Your task to perform on an android device: open app "Microsoft Authenticator" (install if not already installed) Image 0: 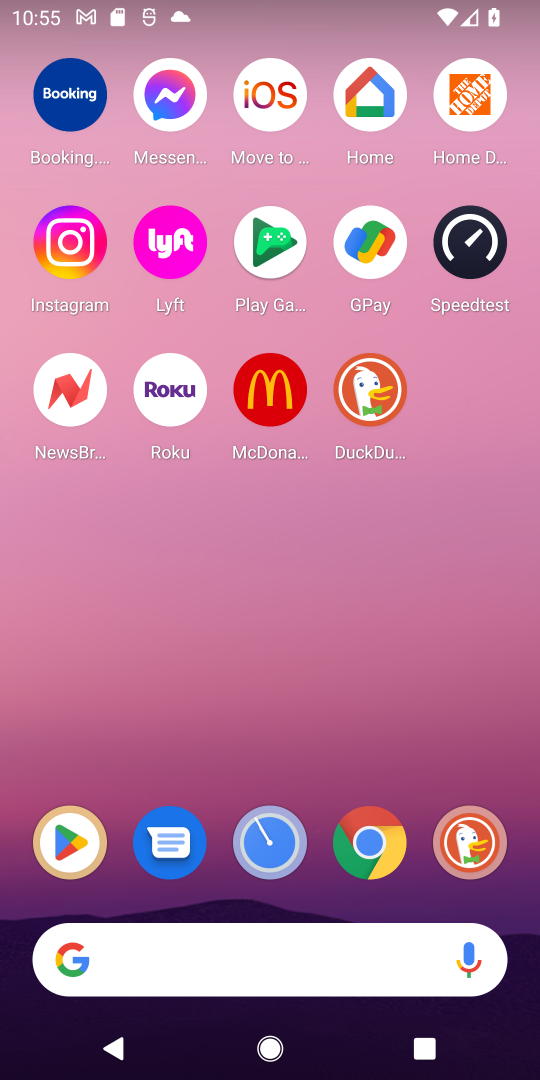
Step 0: click (81, 837)
Your task to perform on an android device: open app "Microsoft Authenticator" (install if not already installed) Image 1: 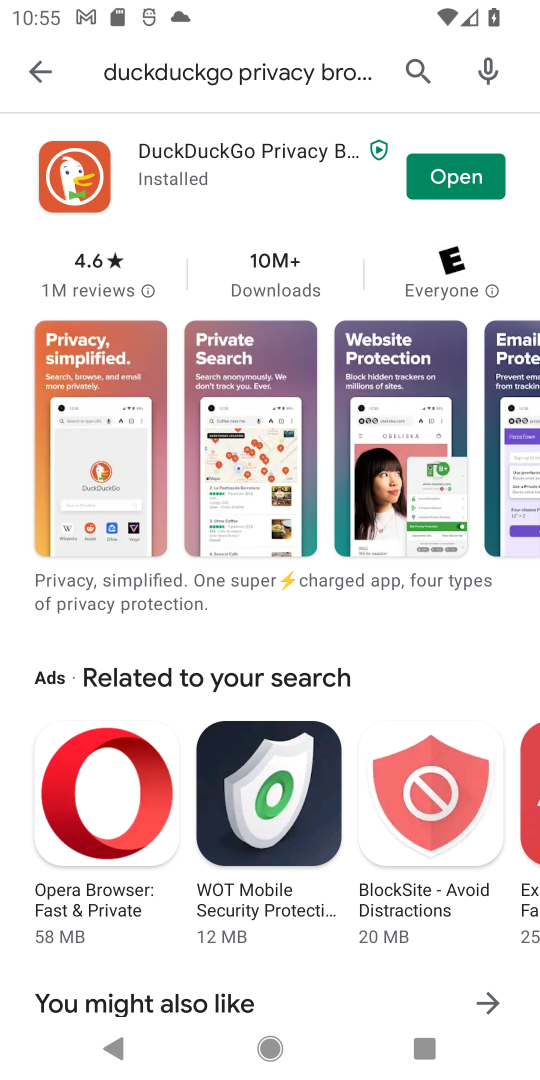
Step 1: click (405, 78)
Your task to perform on an android device: open app "Microsoft Authenticator" (install if not already installed) Image 2: 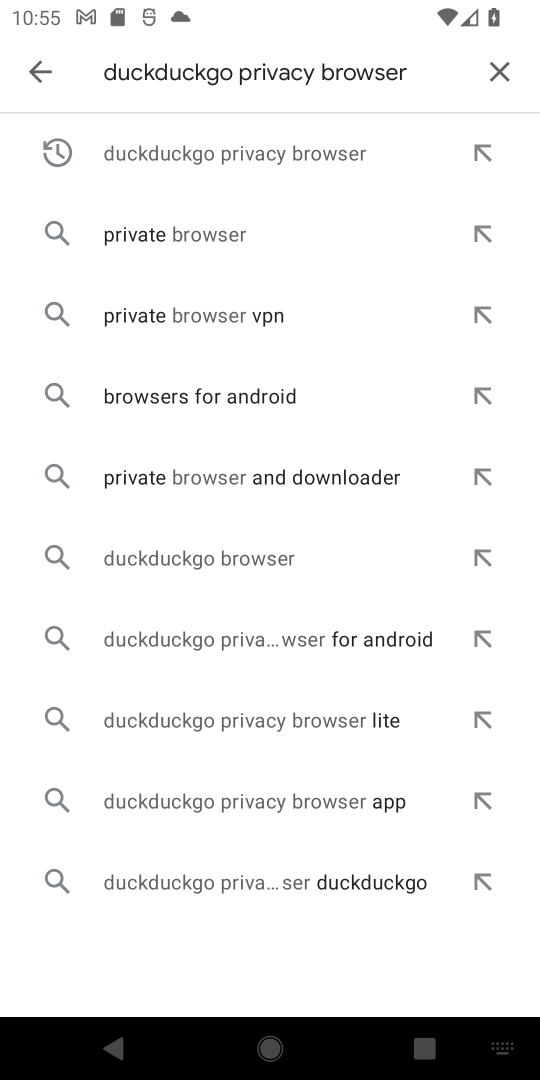
Step 2: click (492, 66)
Your task to perform on an android device: open app "Microsoft Authenticator" (install if not already installed) Image 3: 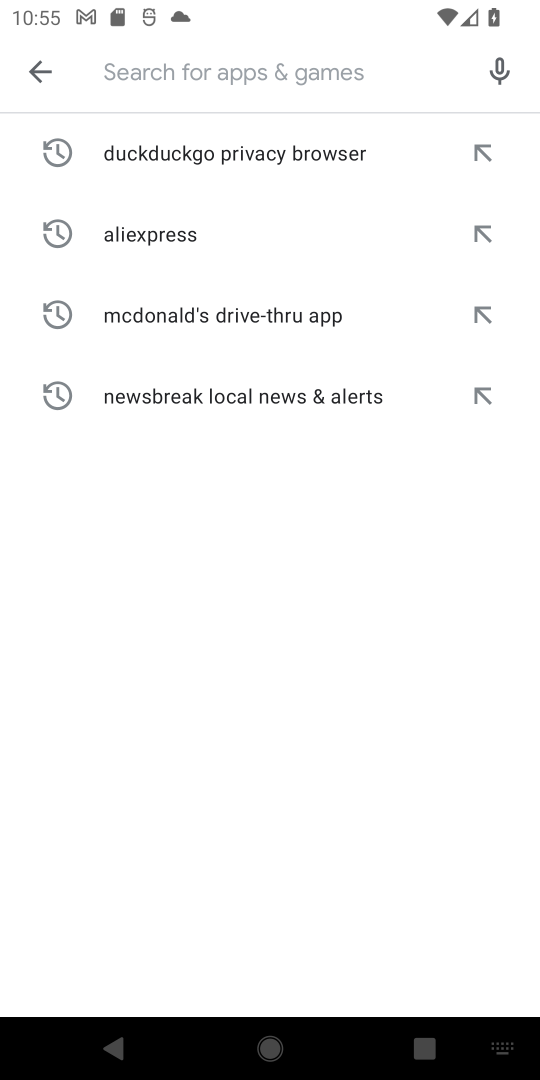
Step 3: click (130, 65)
Your task to perform on an android device: open app "Microsoft Authenticator" (install if not already installed) Image 4: 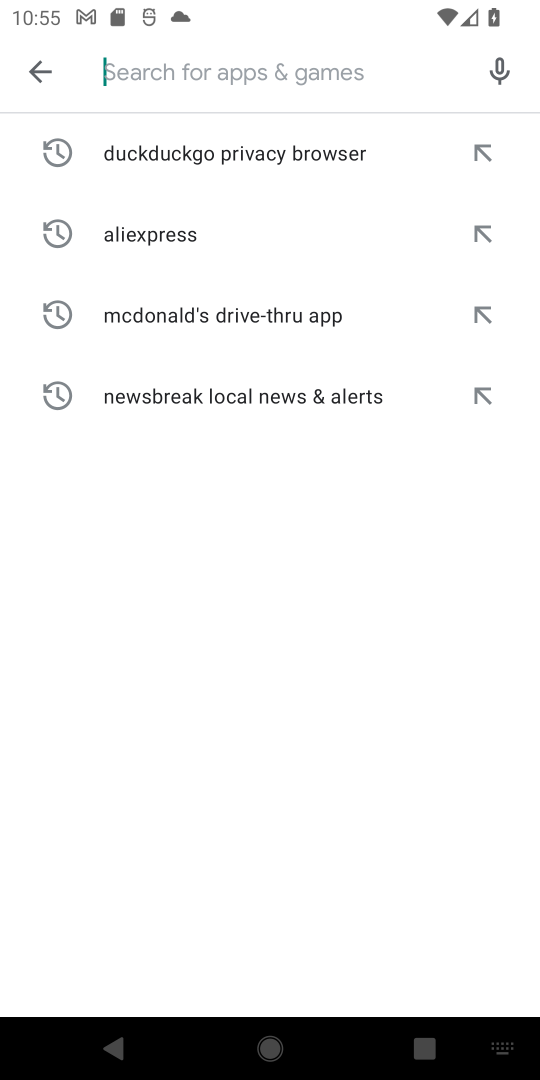
Step 4: type "Microsoft Authenticator"
Your task to perform on an android device: open app "Microsoft Authenticator" (install if not already installed) Image 5: 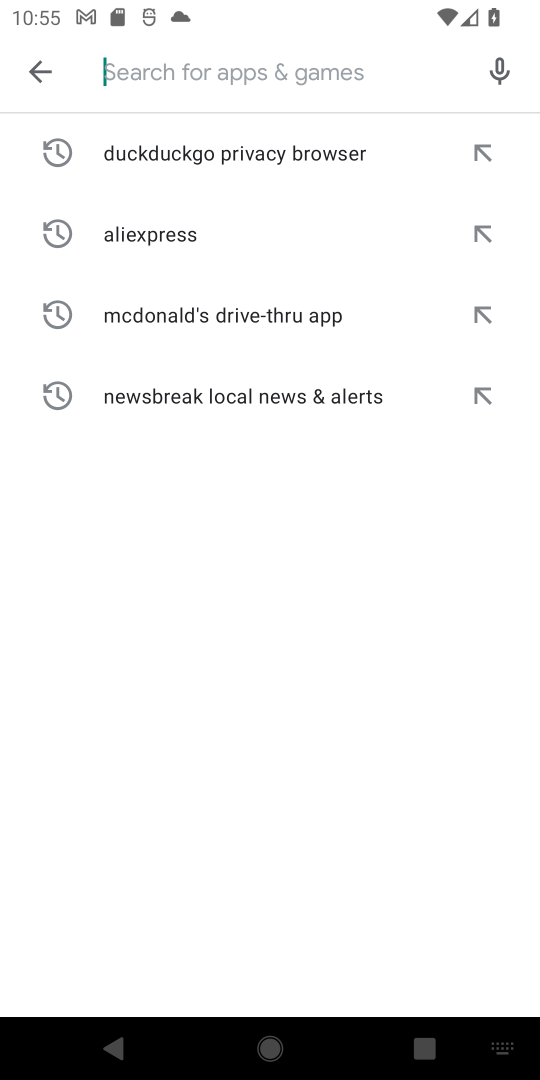
Step 5: click (209, 530)
Your task to perform on an android device: open app "Microsoft Authenticator" (install if not already installed) Image 6: 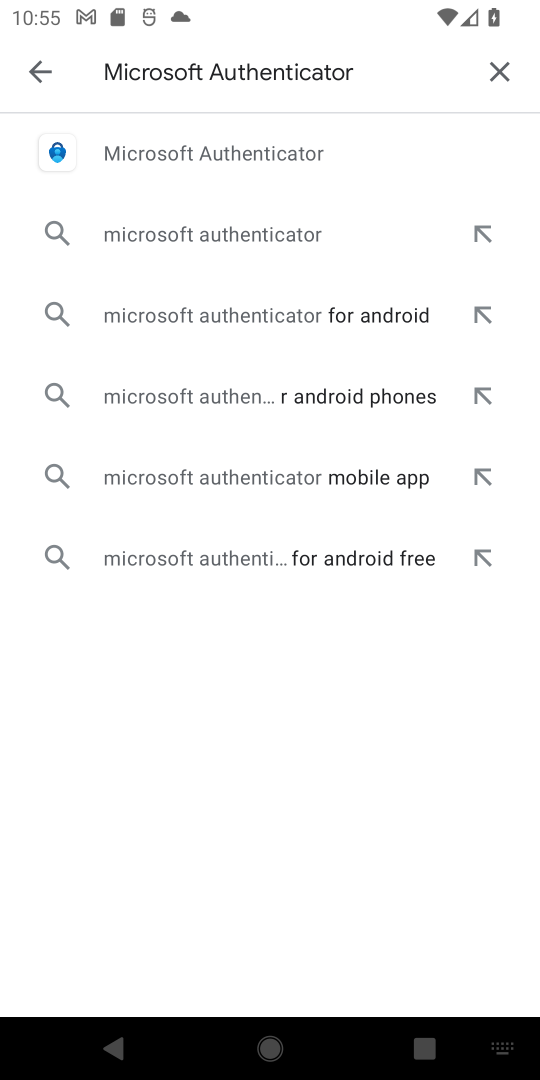
Step 6: click (260, 145)
Your task to perform on an android device: open app "Microsoft Authenticator" (install if not already installed) Image 7: 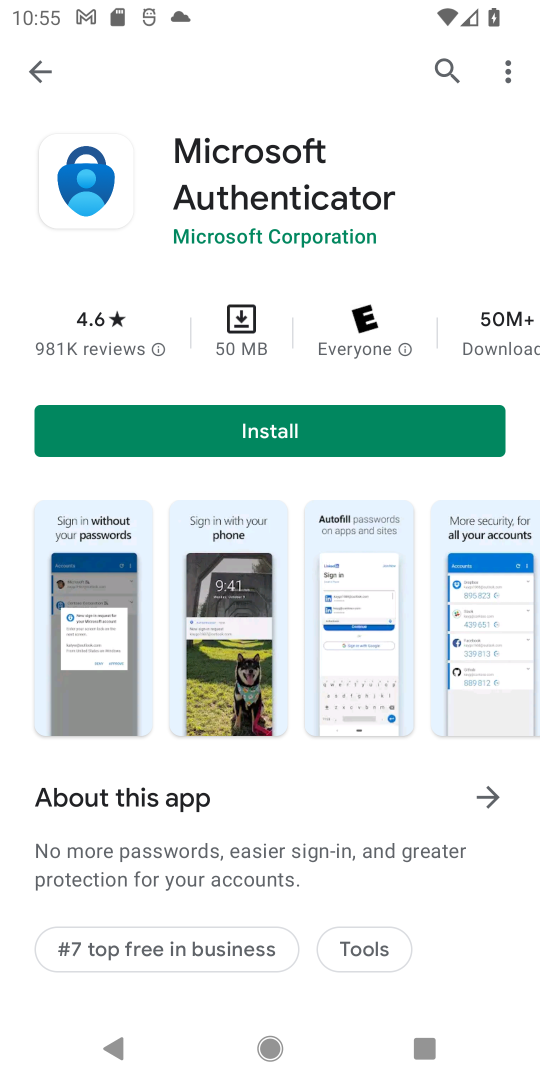
Step 7: click (253, 423)
Your task to perform on an android device: open app "Microsoft Authenticator" (install if not already installed) Image 8: 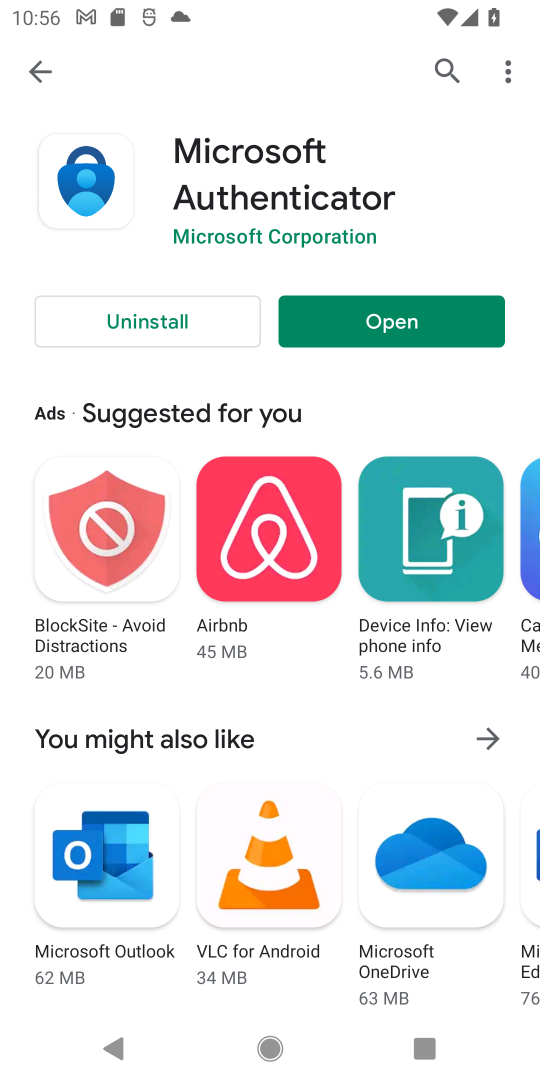
Step 8: click (406, 314)
Your task to perform on an android device: open app "Microsoft Authenticator" (install if not already installed) Image 9: 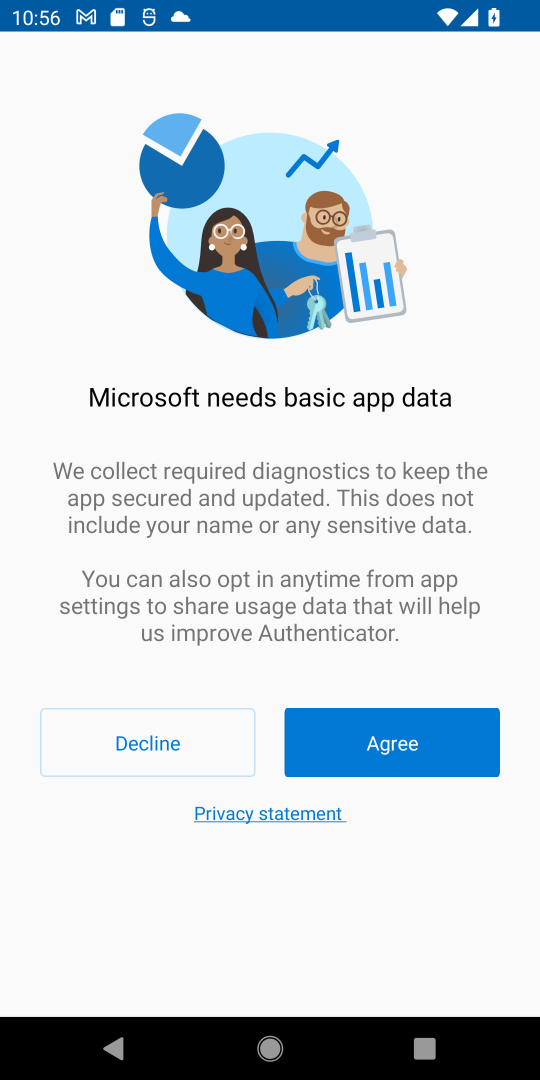
Step 9: task complete